Your task to perform on an android device: Do I have any events this weekend? Image 0: 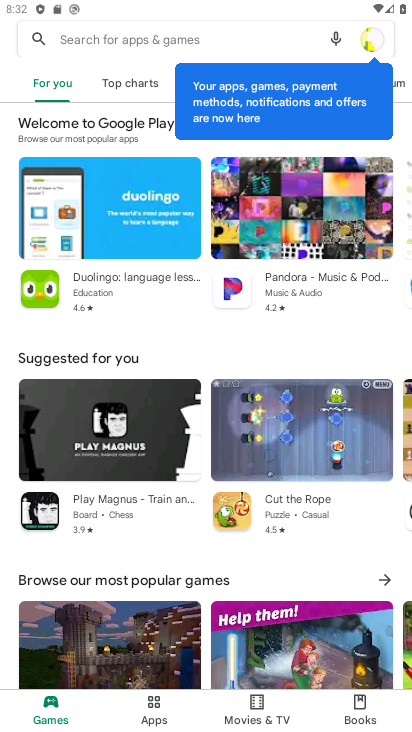
Step 0: press home button
Your task to perform on an android device: Do I have any events this weekend? Image 1: 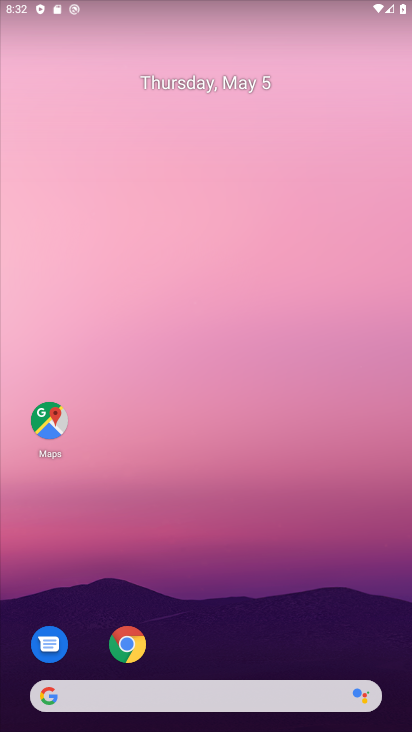
Step 1: drag from (296, 589) to (385, 9)
Your task to perform on an android device: Do I have any events this weekend? Image 2: 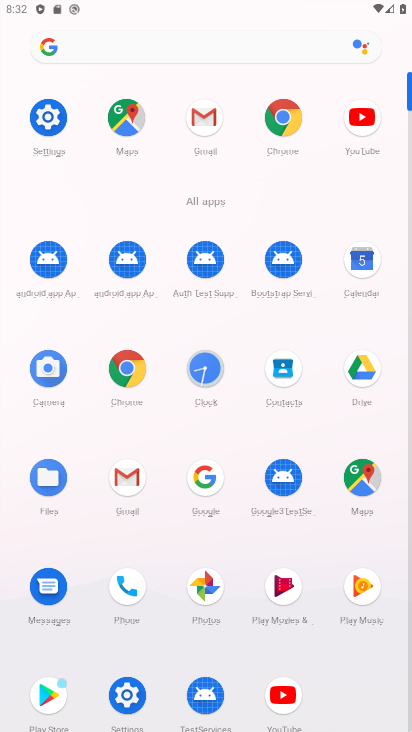
Step 2: click (371, 265)
Your task to perform on an android device: Do I have any events this weekend? Image 3: 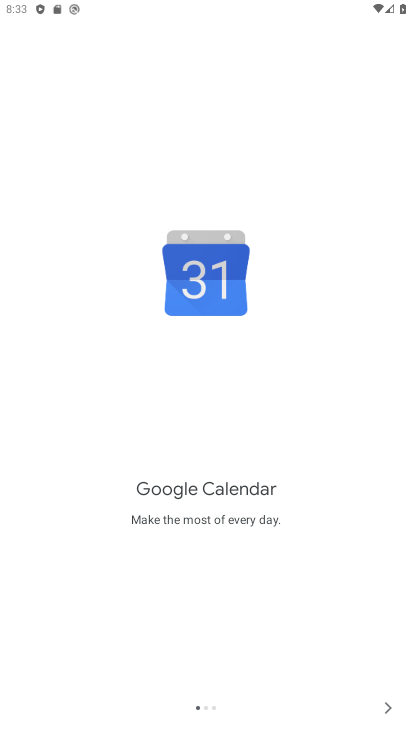
Step 3: click (392, 710)
Your task to perform on an android device: Do I have any events this weekend? Image 4: 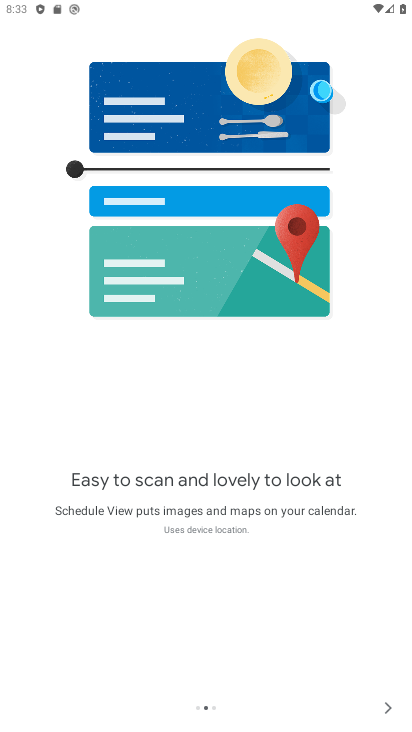
Step 4: click (392, 709)
Your task to perform on an android device: Do I have any events this weekend? Image 5: 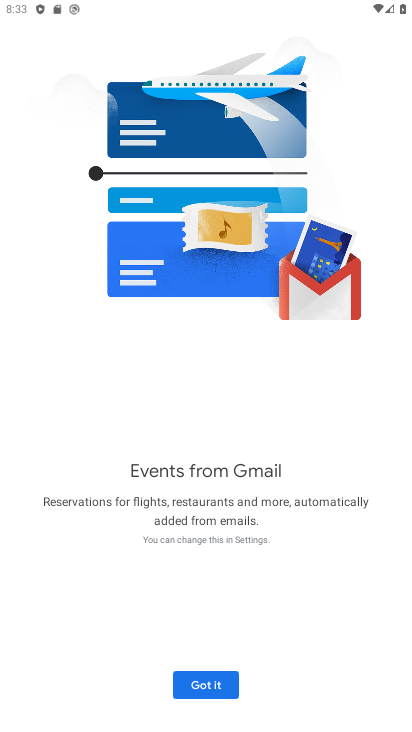
Step 5: click (191, 679)
Your task to perform on an android device: Do I have any events this weekend? Image 6: 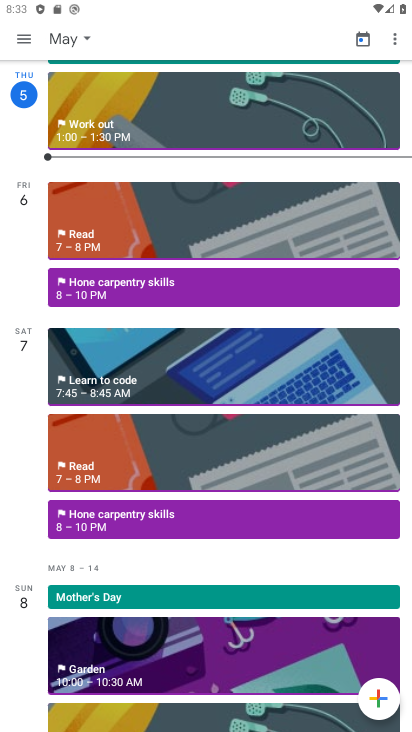
Step 6: click (358, 42)
Your task to perform on an android device: Do I have any events this weekend? Image 7: 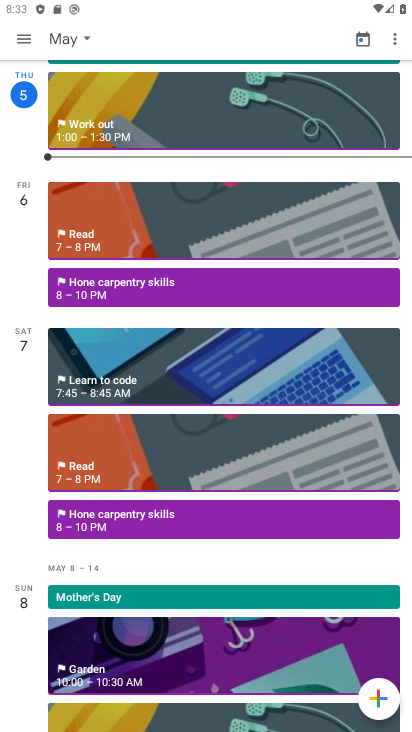
Step 7: click (56, 39)
Your task to perform on an android device: Do I have any events this weekend? Image 8: 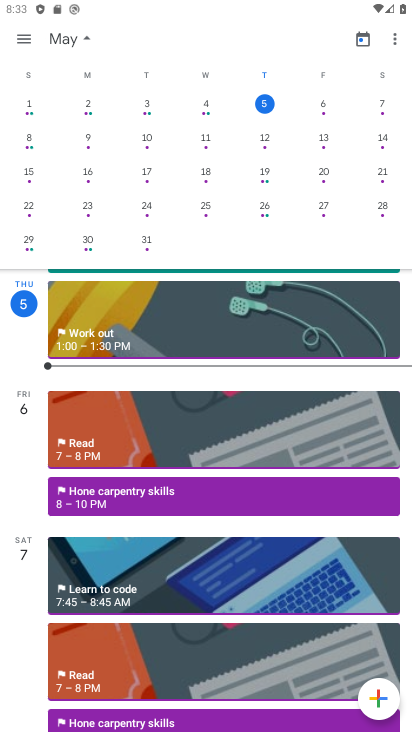
Step 8: click (324, 104)
Your task to perform on an android device: Do I have any events this weekend? Image 9: 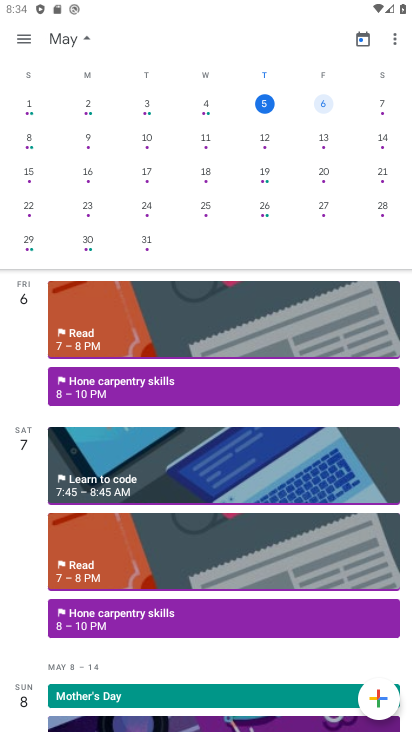
Step 9: task complete